Your task to perform on an android device: allow cookies in the chrome app Image 0: 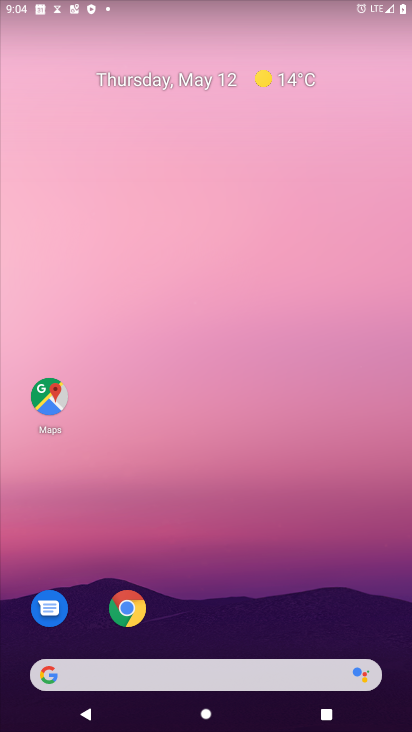
Step 0: click (123, 595)
Your task to perform on an android device: allow cookies in the chrome app Image 1: 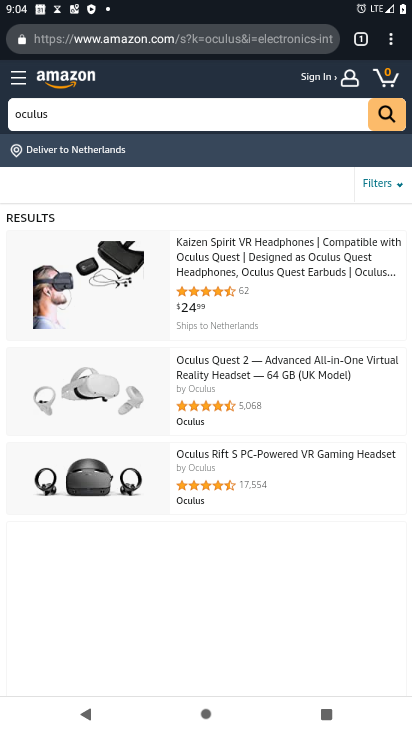
Step 1: click (392, 44)
Your task to perform on an android device: allow cookies in the chrome app Image 2: 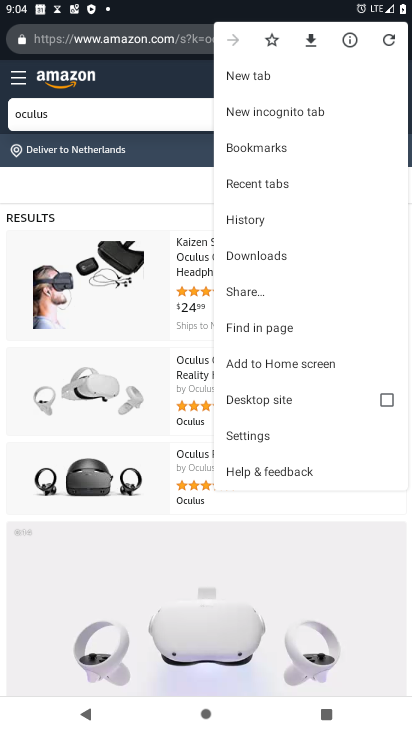
Step 2: click (256, 432)
Your task to perform on an android device: allow cookies in the chrome app Image 3: 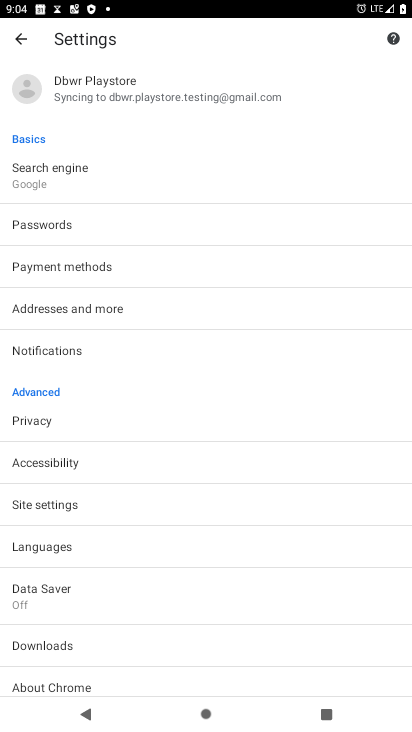
Step 3: click (23, 503)
Your task to perform on an android device: allow cookies in the chrome app Image 4: 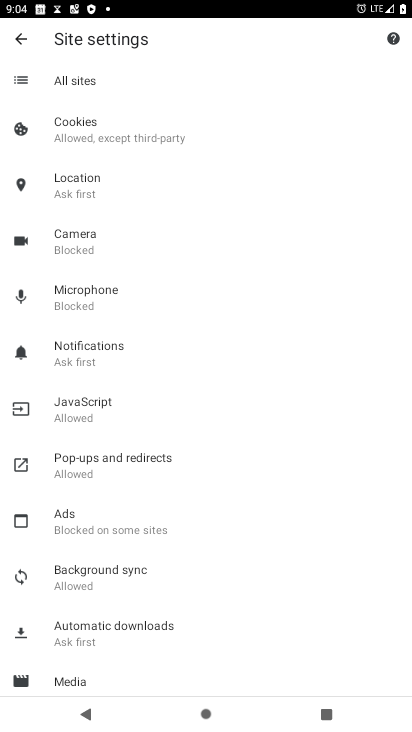
Step 4: click (127, 125)
Your task to perform on an android device: allow cookies in the chrome app Image 5: 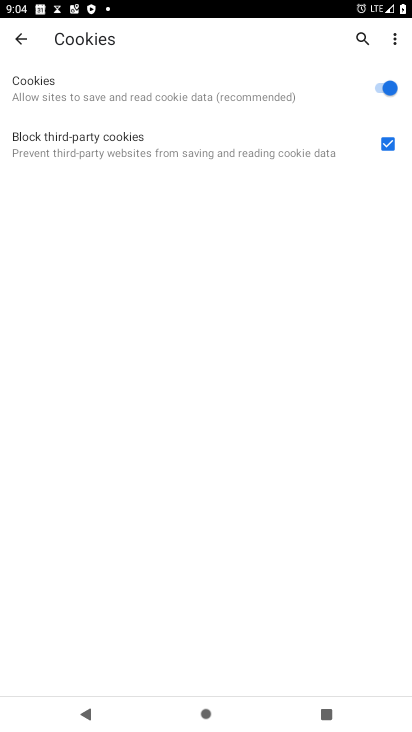
Step 5: click (386, 145)
Your task to perform on an android device: allow cookies in the chrome app Image 6: 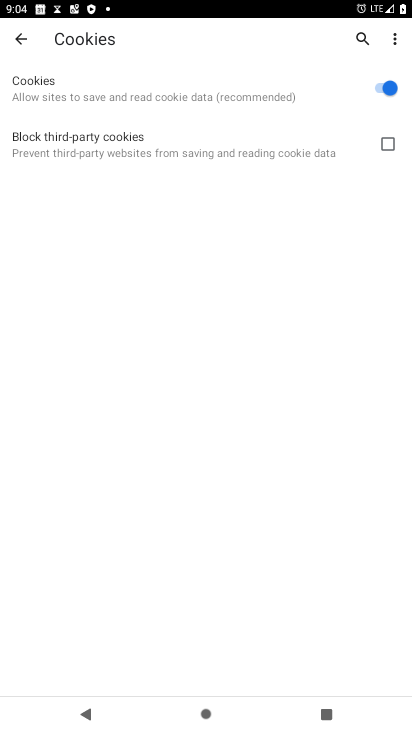
Step 6: task complete